Your task to perform on an android device: turn on priority inbox in the gmail app Image 0: 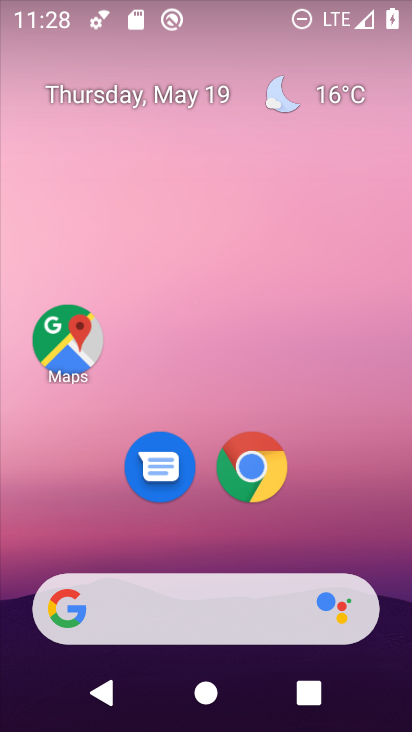
Step 0: drag from (324, 509) to (376, 200)
Your task to perform on an android device: turn on priority inbox in the gmail app Image 1: 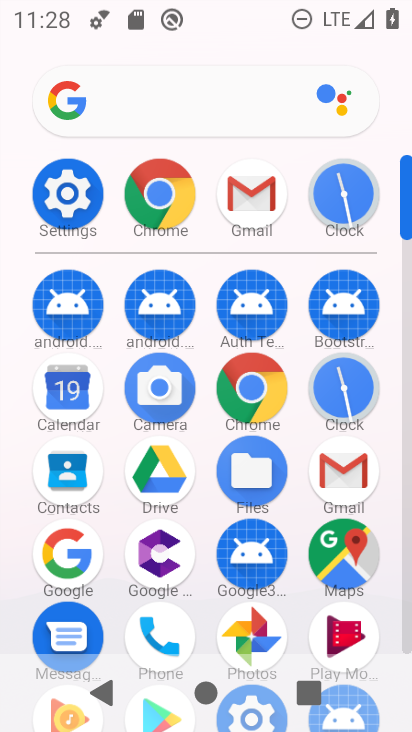
Step 1: click (336, 462)
Your task to perform on an android device: turn on priority inbox in the gmail app Image 2: 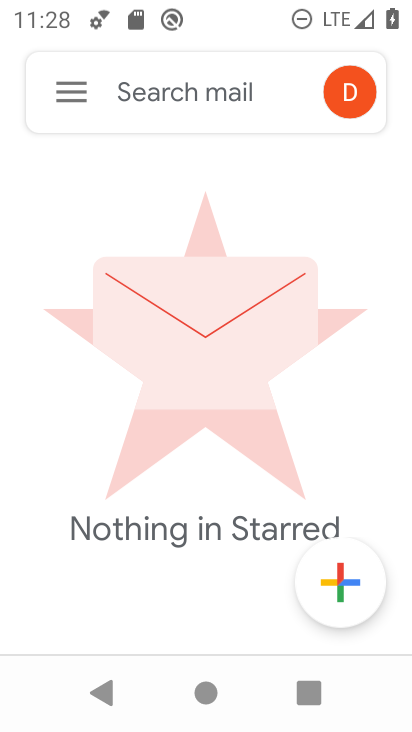
Step 2: click (56, 93)
Your task to perform on an android device: turn on priority inbox in the gmail app Image 3: 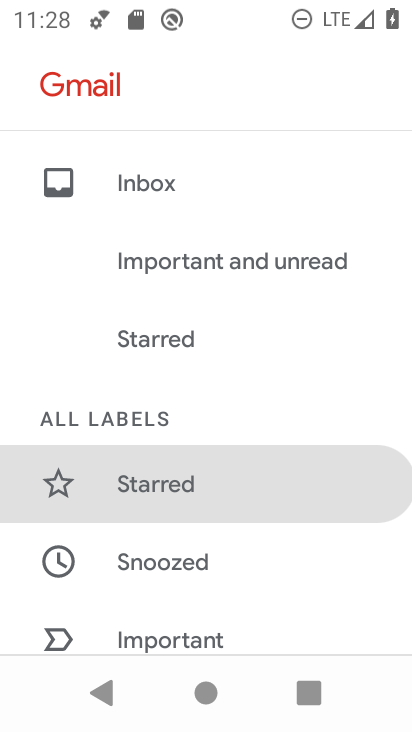
Step 3: drag from (259, 592) to (354, 109)
Your task to perform on an android device: turn on priority inbox in the gmail app Image 4: 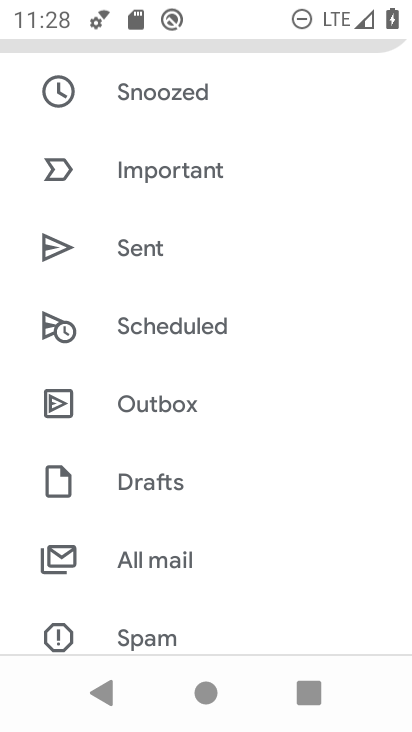
Step 4: click (379, 435)
Your task to perform on an android device: turn on priority inbox in the gmail app Image 5: 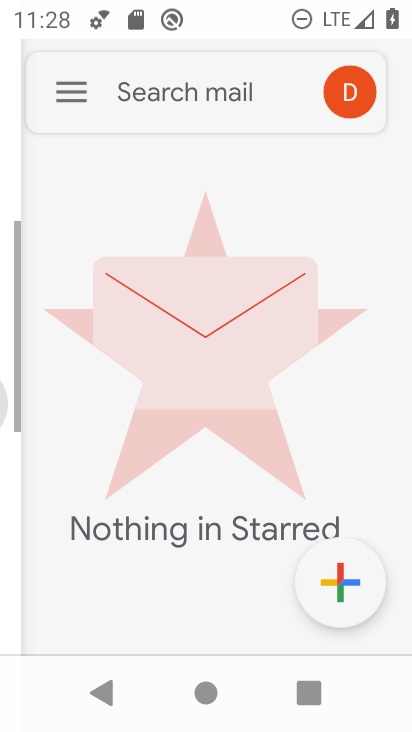
Step 5: drag from (385, 394) to (410, 173)
Your task to perform on an android device: turn on priority inbox in the gmail app Image 6: 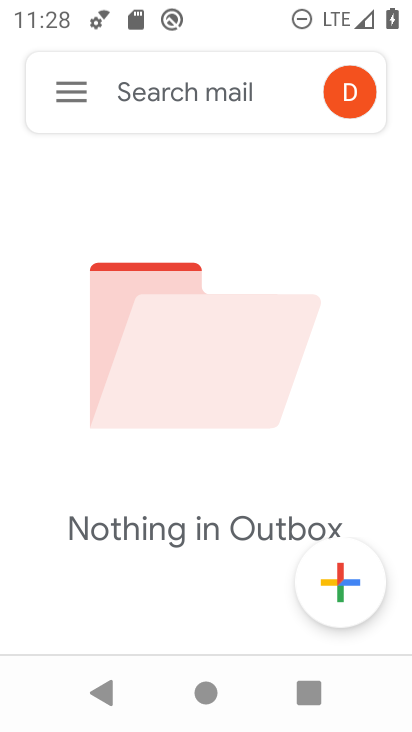
Step 6: click (71, 92)
Your task to perform on an android device: turn on priority inbox in the gmail app Image 7: 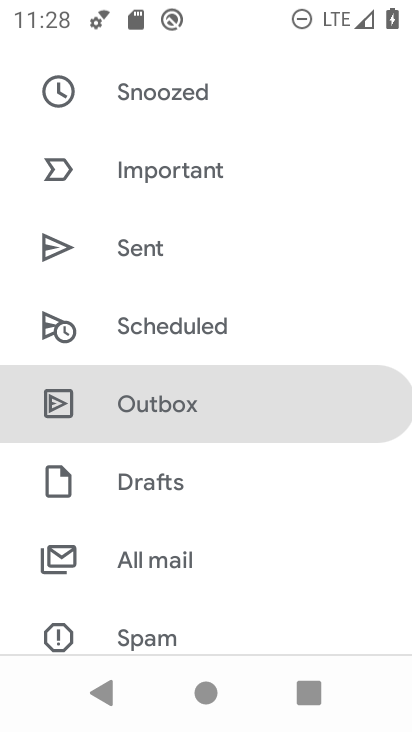
Step 7: drag from (249, 571) to (301, 189)
Your task to perform on an android device: turn on priority inbox in the gmail app Image 8: 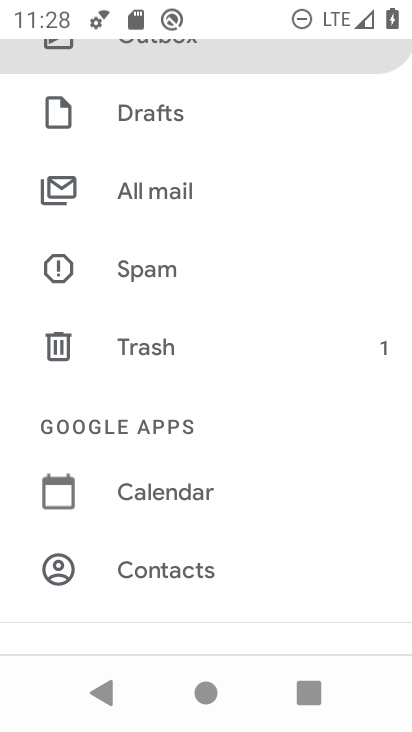
Step 8: drag from (166, 584) to (256, 228)
Your task to perform on an android device: turn on priority inbox in the gmail app Image 9: 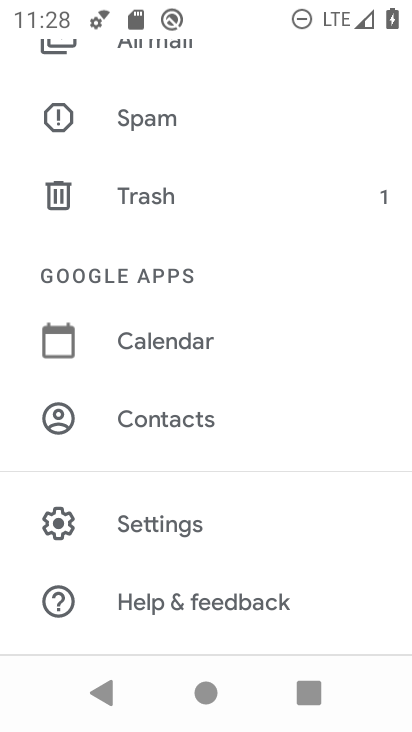
Step 9: click (162, 505)
Your task to perform on an android device: turn on priority inbox in the gmail app Image 10: 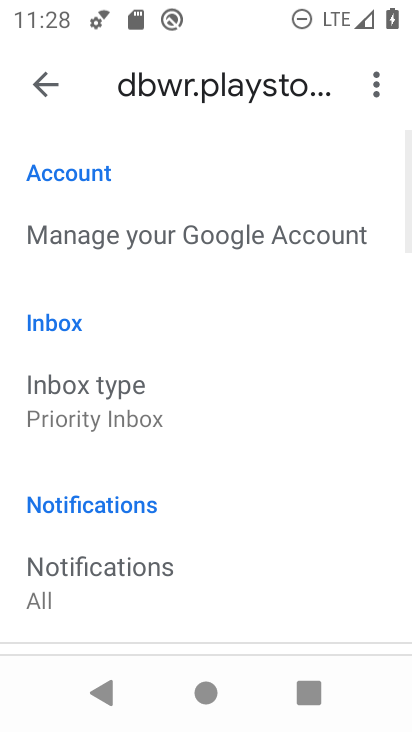
Step 10: click (110, 417)
Your task to perform on an android device: turn on priority inbox in the gmail app Image 11: 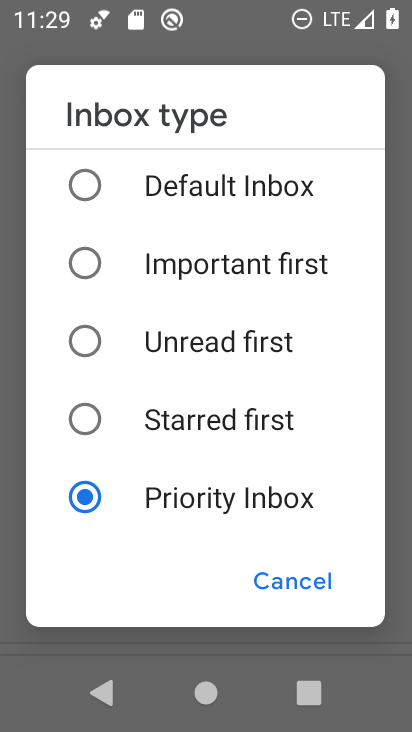
Step 11: task complete